Your task to perform on an android device: Show me popular videos on Youtube Image 0: 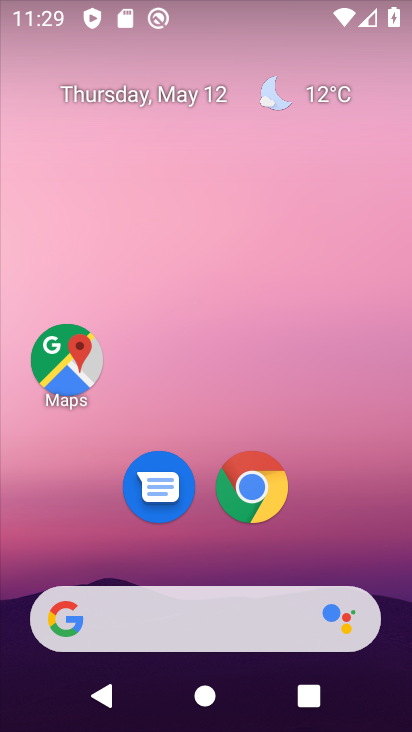
Step 0: drag from (201, 523) to (267, 108)
Your task to perform on an android device: Show me popular videos on Youtube Image 1: 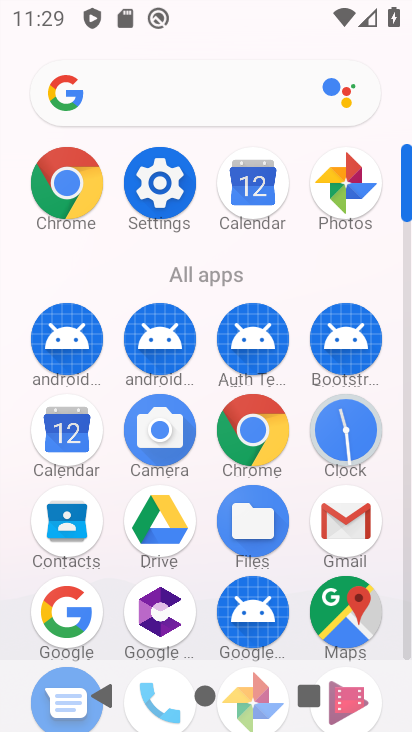
Step 1: drag from (179, 631) to (277, 113)
Your task to perform on an android device: Show me popular videos on Youtube Image 2: 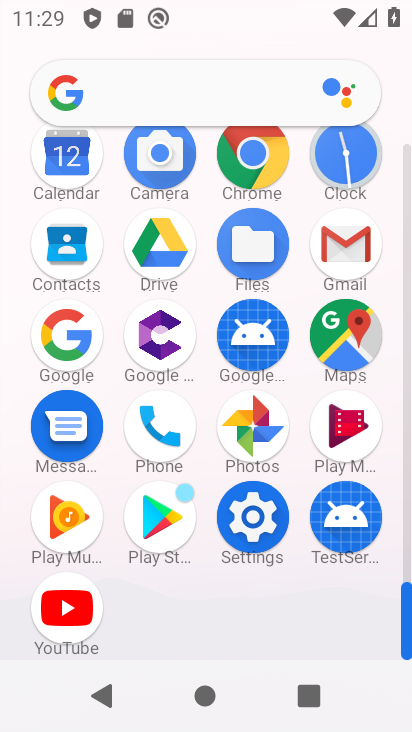
Step 2: click (57, 617)
Your task to perform on an android device: Show me popular videos on Youtube Image 3: 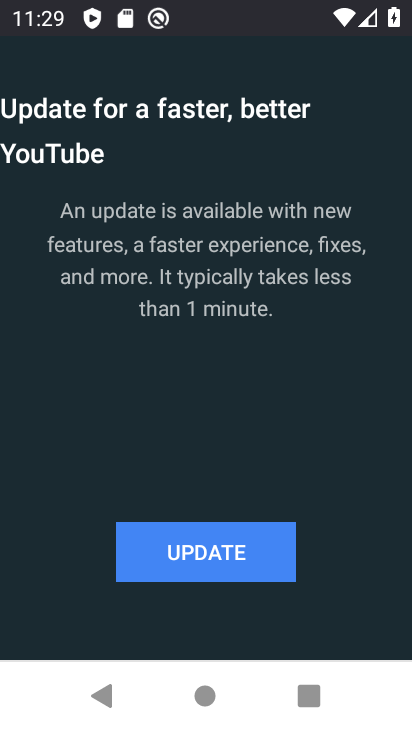
Step 3: click (194, 548)
Your task to perform on an android device: Show me popular videos on Youtube Image 4: 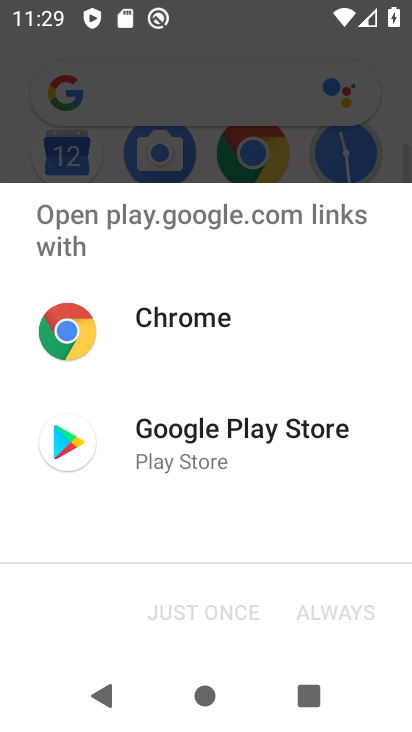
Step 4: click (154, 448)
Your task to perform on an android device: Show me popular videos on Youtube Image 5: 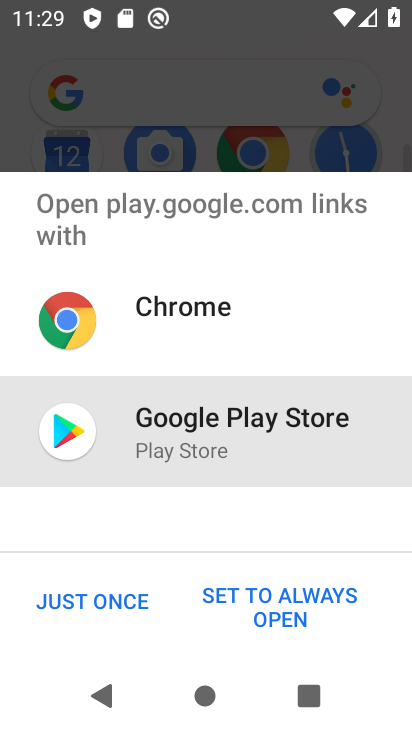
Step 5: click (107, 611)
Your task to perform on an android device: Show me popular videos on Youtube Image 6: 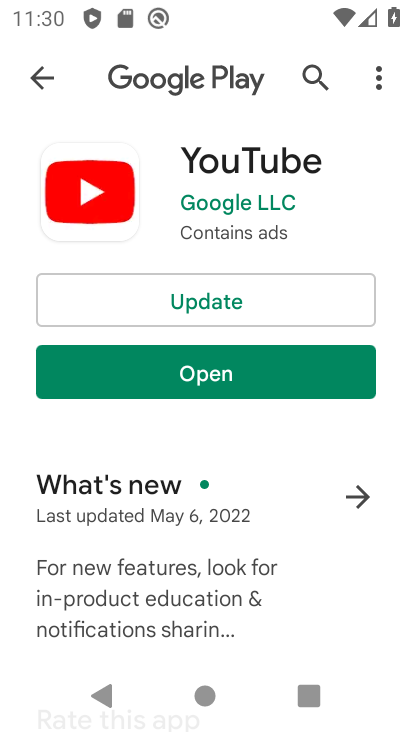
Step 6: click (159, 293)
Your task to perform on an android device: Show me popular videos on Youtube Image 7: 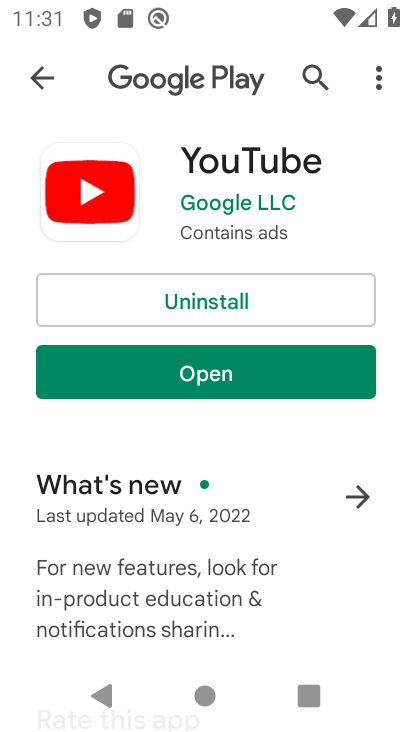
Step 7: click (188, 382)
Your task to perform on an android device: Show me popular videos on Youtube Image 8: 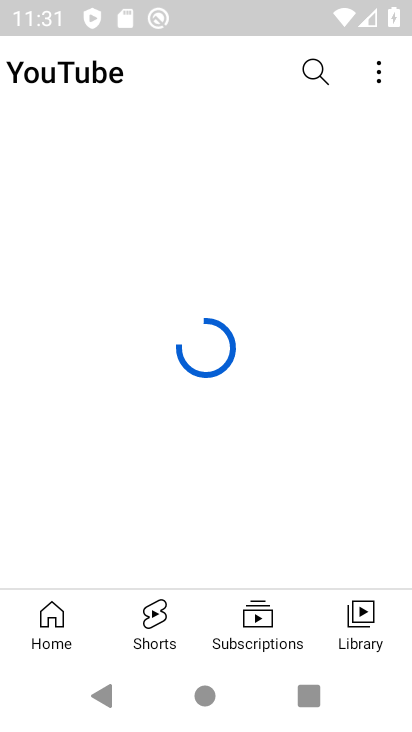
Step 8: click (54, 625)
Your task to perform on an android device: Show me popular videos on Youtube Image 9: 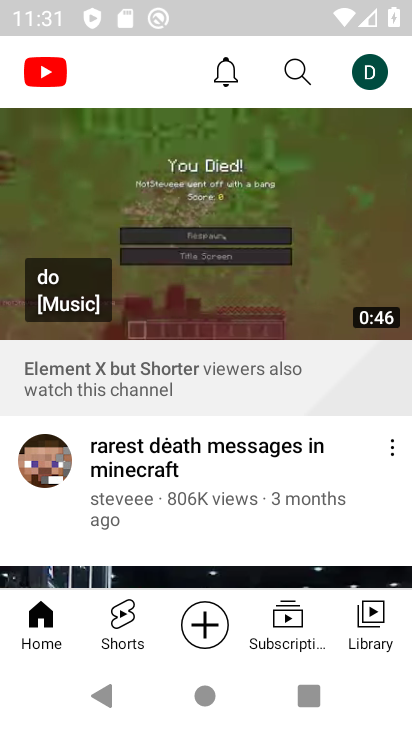
Step 9: drag from (203, 174) to (199, 542)
Your task to perform on an android device: Show me popular videos on Youtube Image 10: 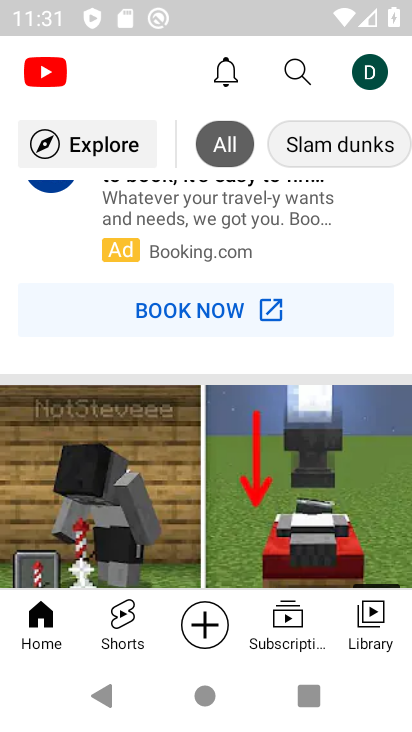
Step 10: click (108, 149)
Your task to perform on an android device: Show me popular videos on Youtube Image 11: 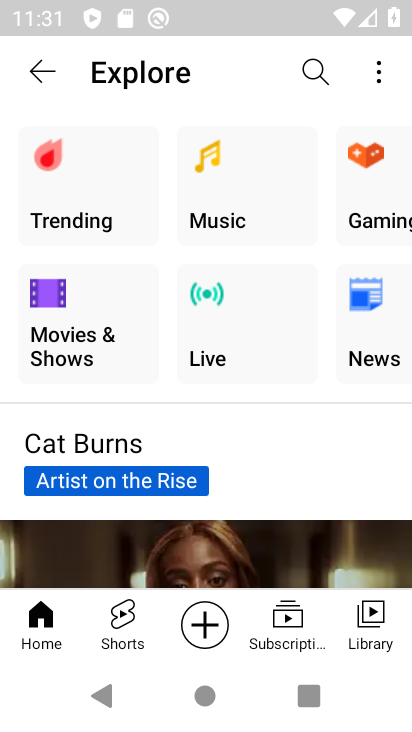
Step 11: click (94, 173)
Your task to perform on an android device: Show me popular videos on Youtube Image 12: 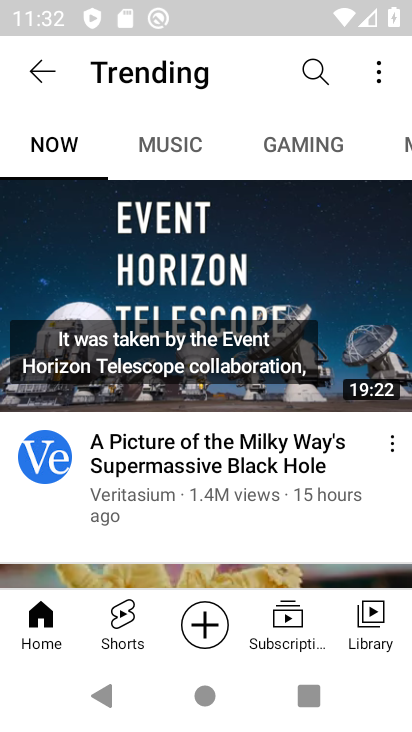
Step 12: task complete